Your task to perform on an android device: Open location settings Image 0: 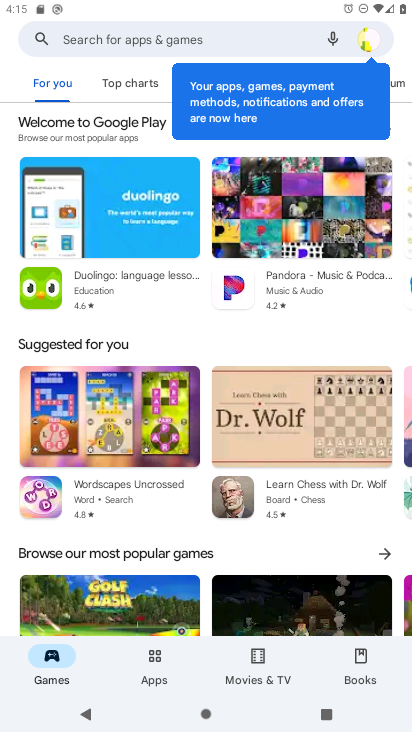
Step 0: press back button
Your task to perform on an android device: Open location settings Image 1: 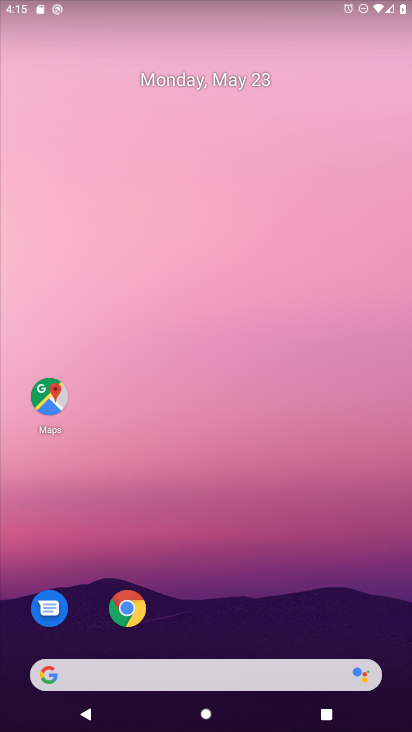
Step 1: drag from (244, 603) to (156, 78)
Your task to perform on an android device: Open location settings Image 2: 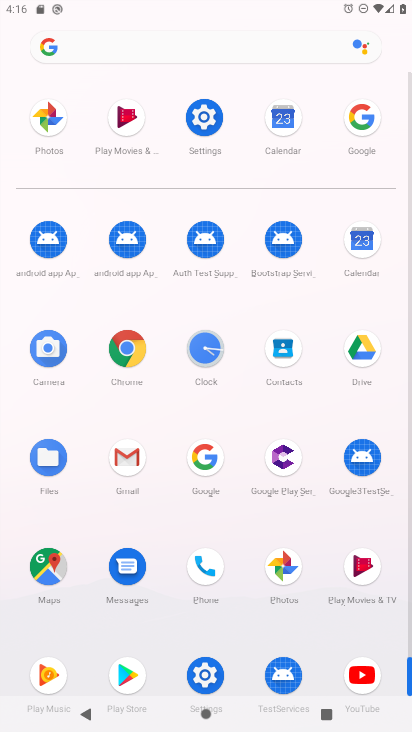
Step 2: click (204, 117)
Your task to perform on an android device: Open location settings Image 3: 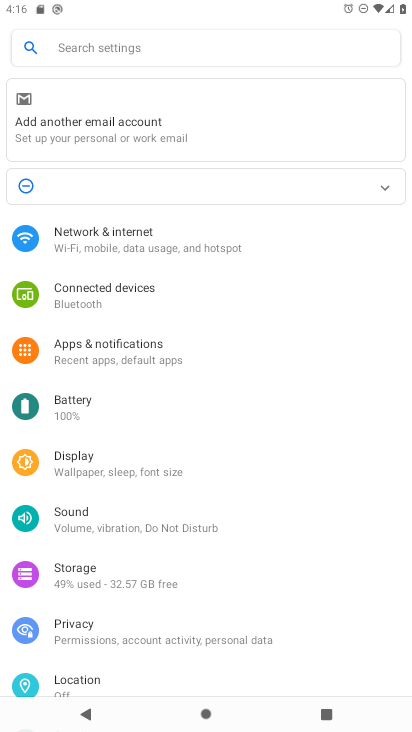
Step 3: drag from (147, 613) to (170, 497)
Your task to perform on an android device: Open location settings Image 4: 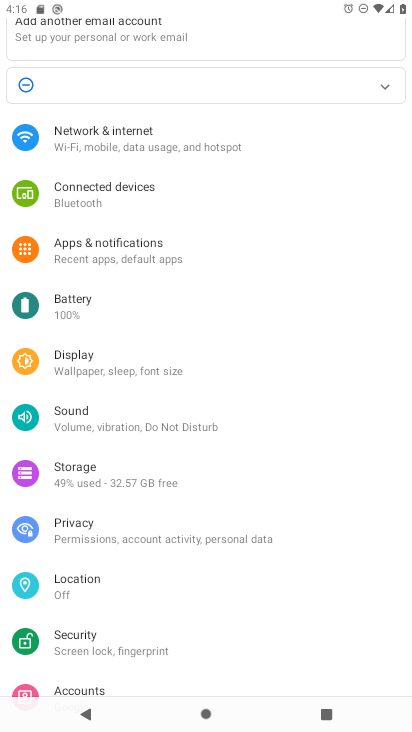
Step 4: click (81, 584)
Your task to perform on an android device: Open location settings Image 5: 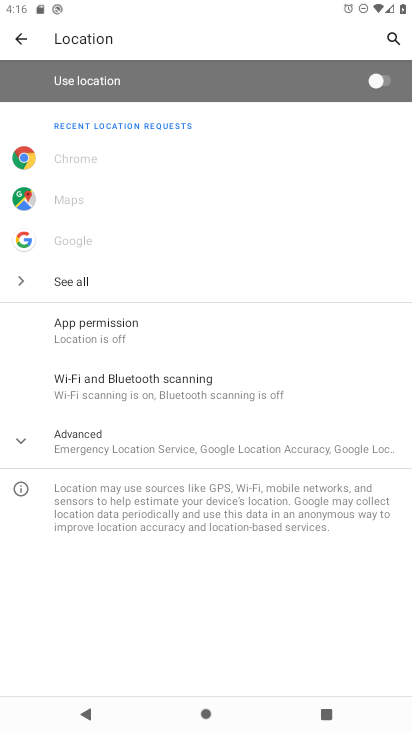
Step 5: task complete